Your task to perform on an android device: What is the recent news? Image 0: 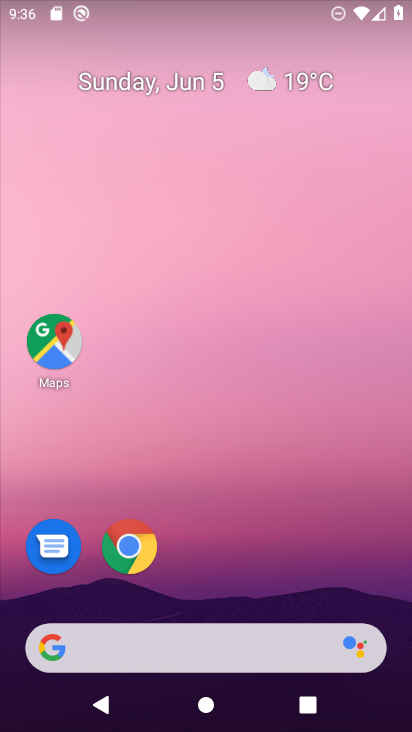
Step 0: click (298, 640)
Your task to perform on an android device: What is the recent news? Image 1: 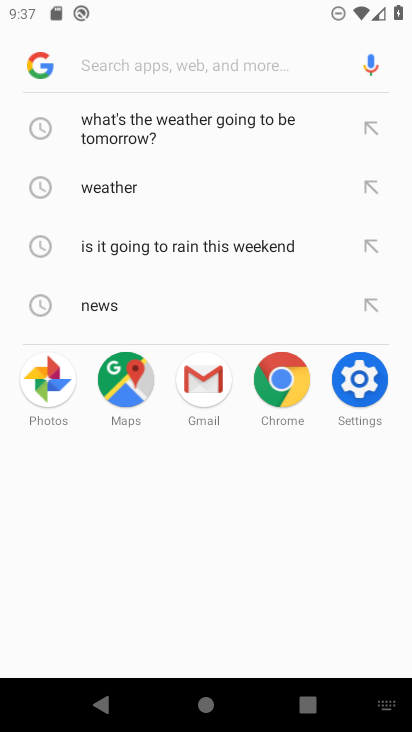
Step 1: click (82, 308)
Your task to perform on an android device: What is the recent news? Image 2: 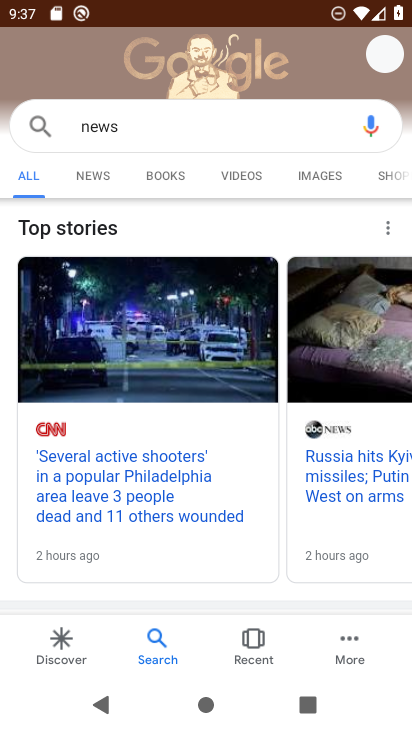
Step 2: task complete